Your task to perform on an android device: What's on my calendar tomorrow? Image 0: 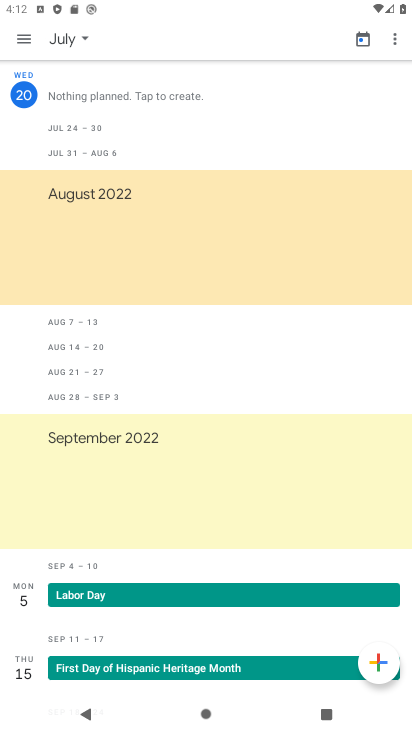
Step 0: press home button
Your task to perform on an android device: What's on my calendar tomorrow? Image 1: 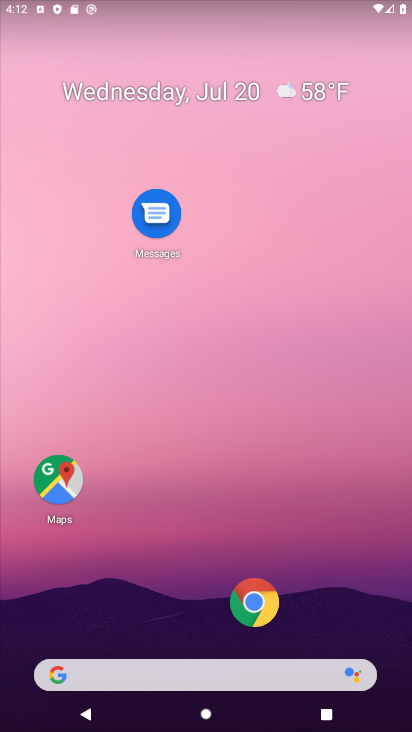
Step 1: drag from (167, 288) to (235, 7)
Your task to perform on an android device: What's on my calendar tomorrow? Image 2: 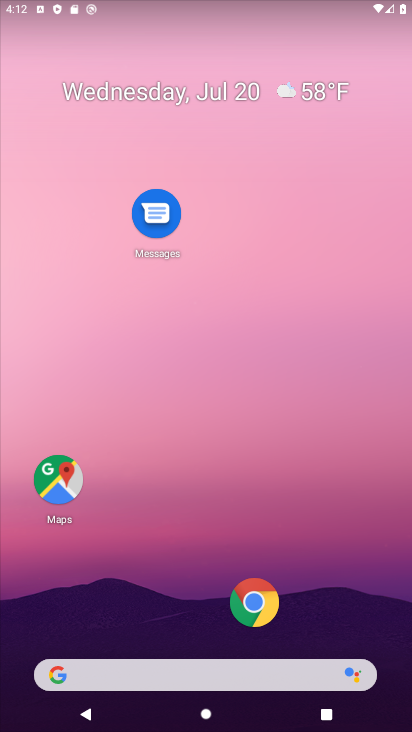
Step 2: drag from (210, 418) to (271, 10)
Your task to perform on an android device: What's on my calendar tomorrow? Image 3: 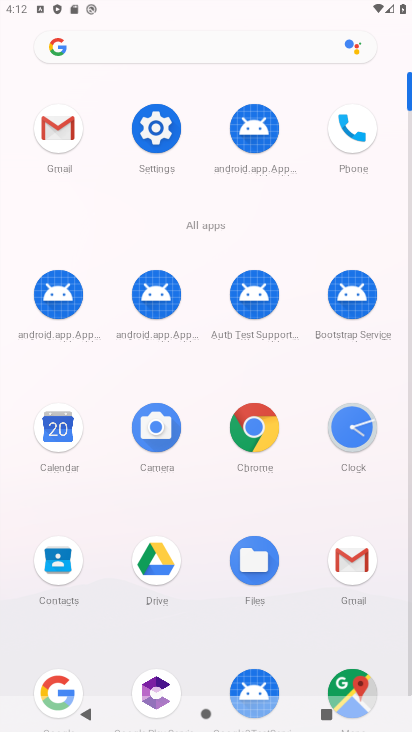
Step 3: drag from (304, 534) to (292, 341)
Your task to perform on an android device: What's on my calendar tomorrow? Image 4: 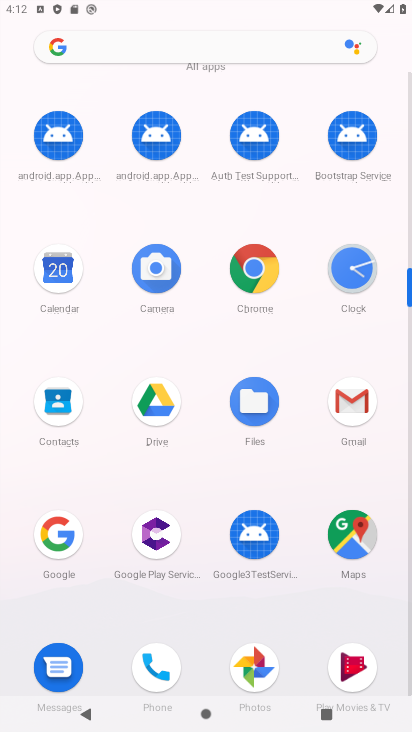
Step 4: click (35, 284)
Your task to perform on an android device: What's on my calendar tomorrow? Image 5: 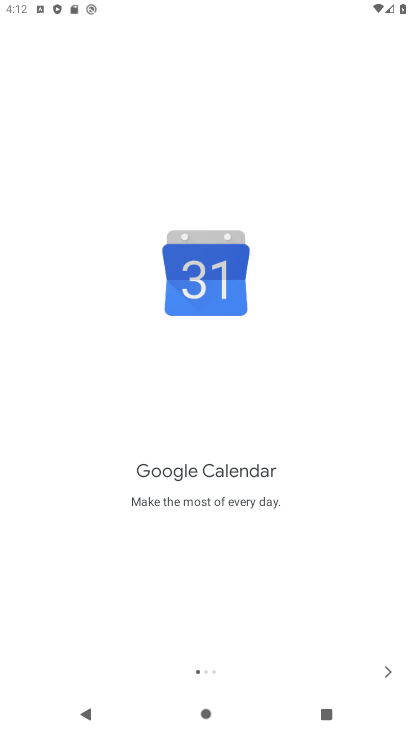
Step 5: click (384, 671)
Your task to perform on an android device: What's on my calendar tomorrow? Image 6: 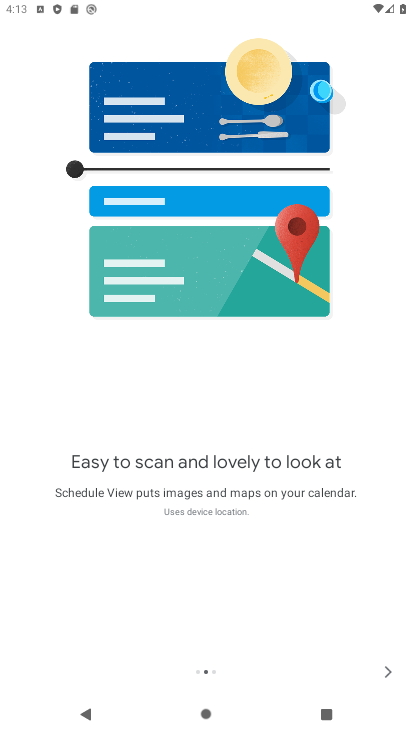
Step 6: click (384, 671)
Your task to perform on an android device: What's on my calendar tomorrow? Image 7: 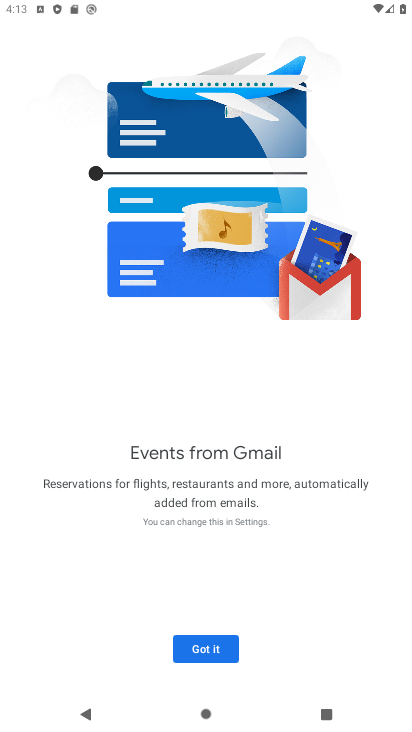
Step 7: click (384, 671)
Your task to perform on an android device: What's on my calendar tomorrow? Image 8: 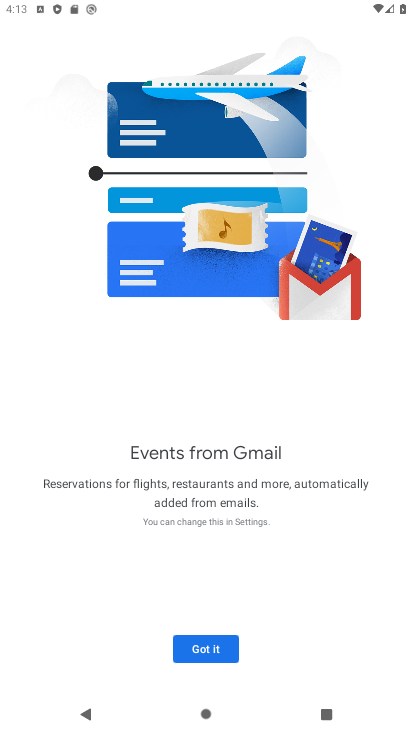
Step 8: click (216, 646)
Your task to perform on an android device: What's on my calendar tomorrow? Image 9: 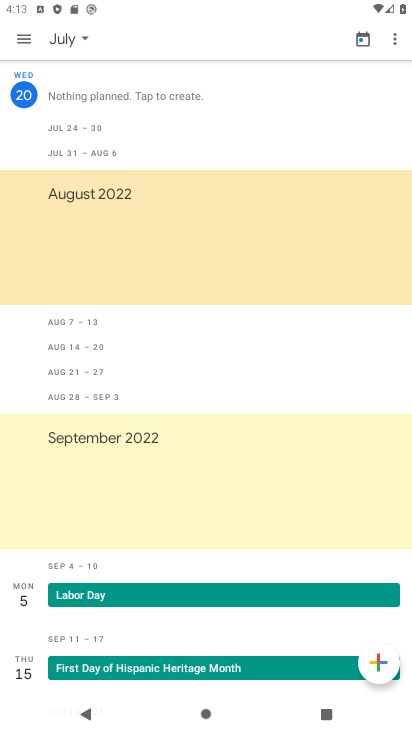
Step 9: click (71, 37)
Your task to perform on an android device: What's on my calendar tomorrow? Image 10: 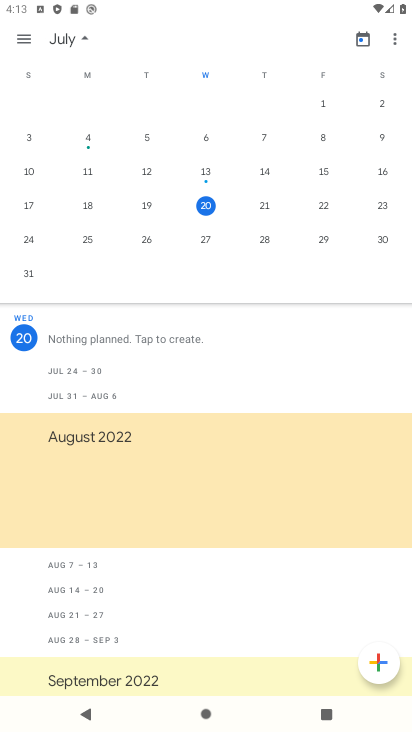
Step 10: task complete